Your task to perform on an android device: Go to CNN.com Image 0: 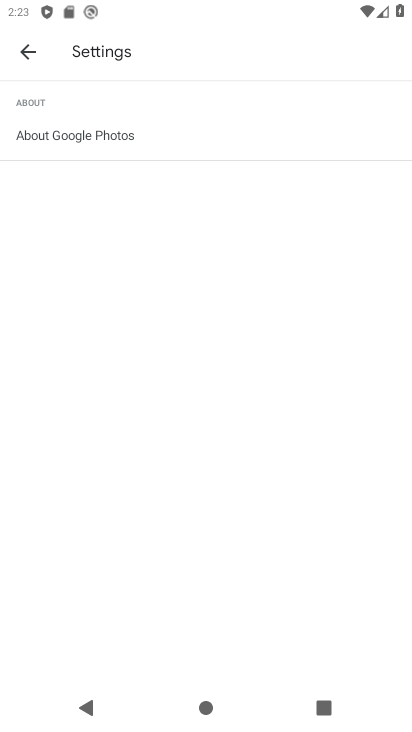
Step 0: press home button
Your task to perform on an android device: Go to CNN.com Image 1: 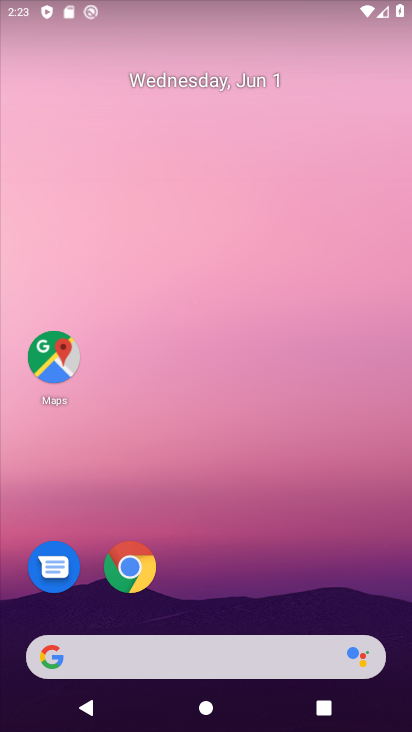
Step 1: click (126, 577)
Your task to perform on an android device: Go to CNN.com Image 2: 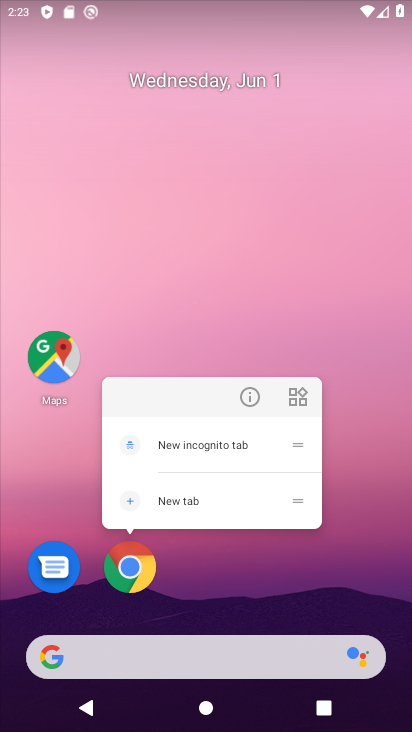
Step 2: click (135, 568)
Your task to perform on an android device: Go to CNN.com Image 3: 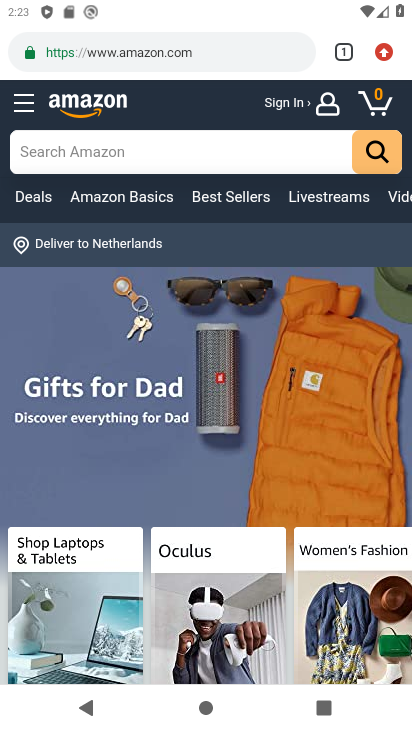
Step 3: click (241, 55)
Your task to perform on an android device: Go to CNN.com Image 4: 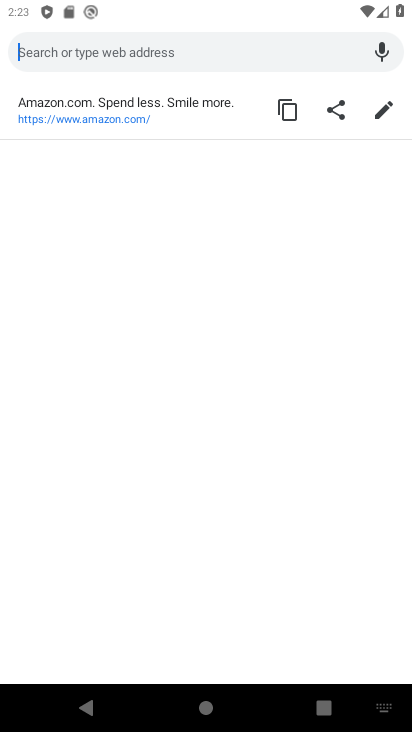
Step 4: type "CNN.com"
Your task to perform on an android device: Go to CNN.com Image 5: 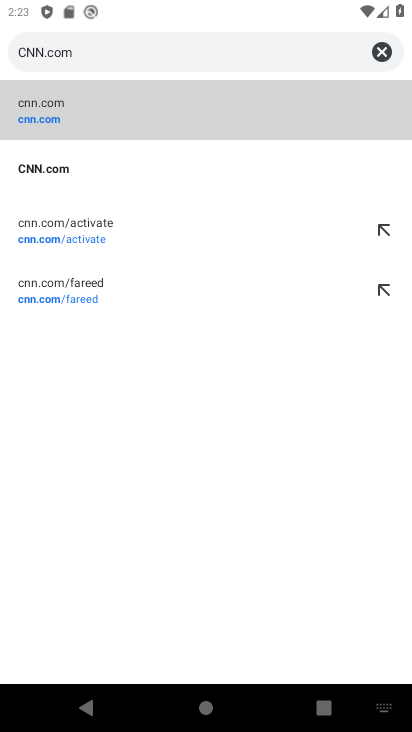
Step 5: click (117, 162)
Your task to perform on an android device: Go to CNN.com Image 6: 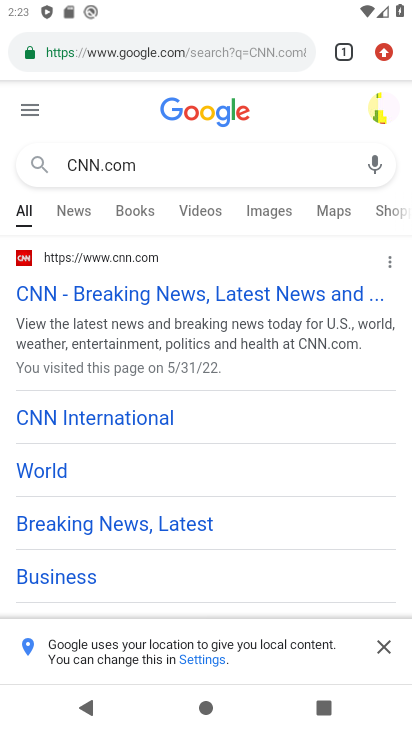
Step 6: click (229, 307)
Your task to perform on an android device: Go to CNN.com Image 7: 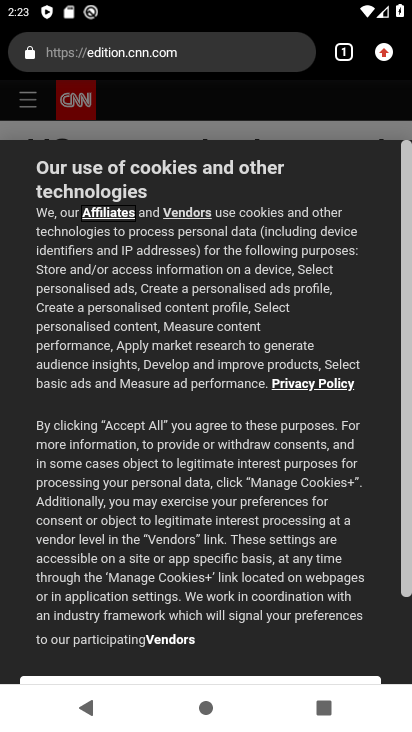
Step 7: drag from (200, 630) to (269, 315)
Your task to perform on an android device: Go to CNN.com Image 8: 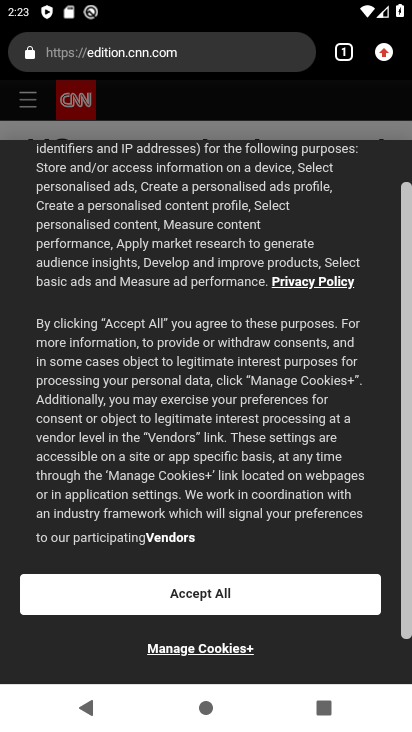
Step 8: click (218, 599)
Your task to perform on an android device: Go to CNN.com Image 9: 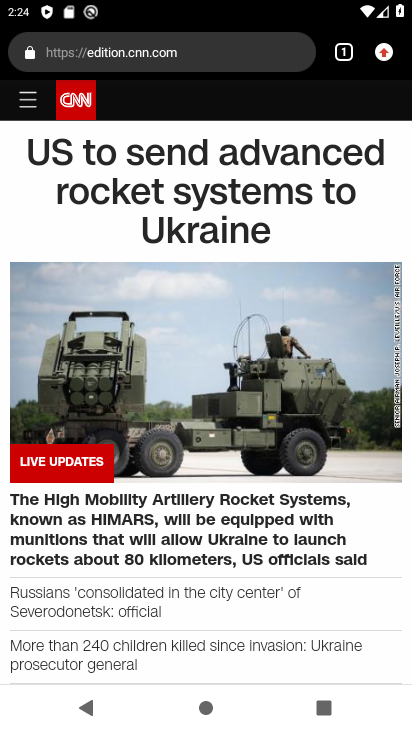
Step 9: task complete